Your task to perform on an android device: Check the weather Image 0: 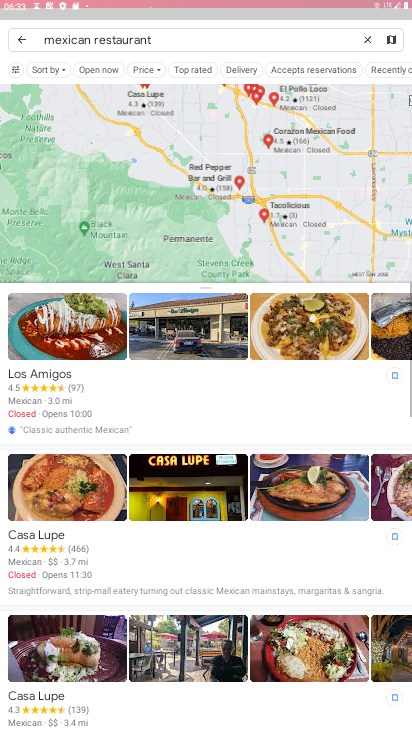
Step 0: press home button
Your task to perform on an android device: Check the weather Image 1: 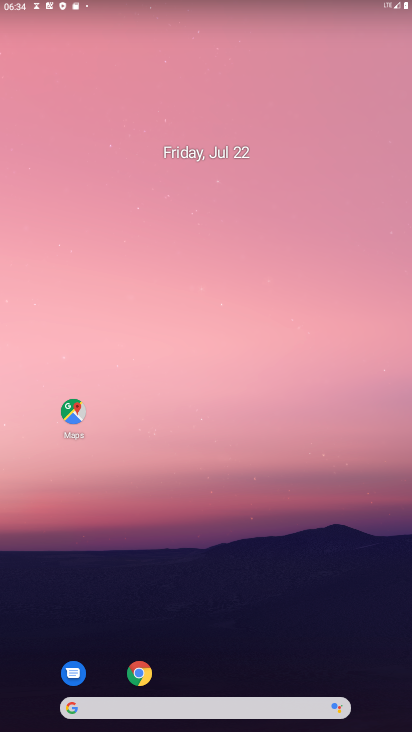
Step 1: click (70, 708)
Your task to perform on an android device: Check the weather Image 2: 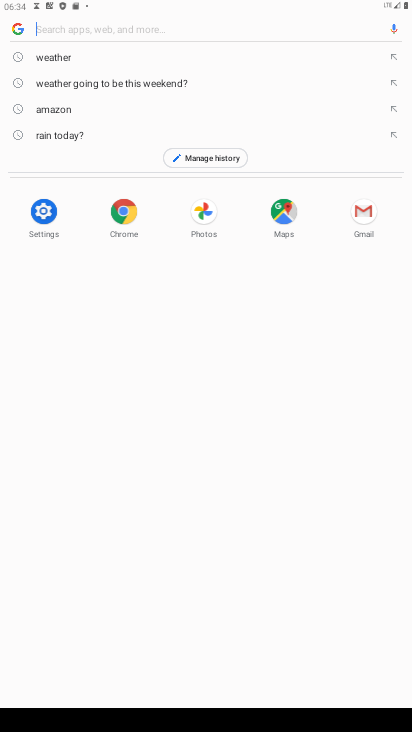
Step 2: click (56, 56)
Your task to perform on an android device: Check the weather Image 3: 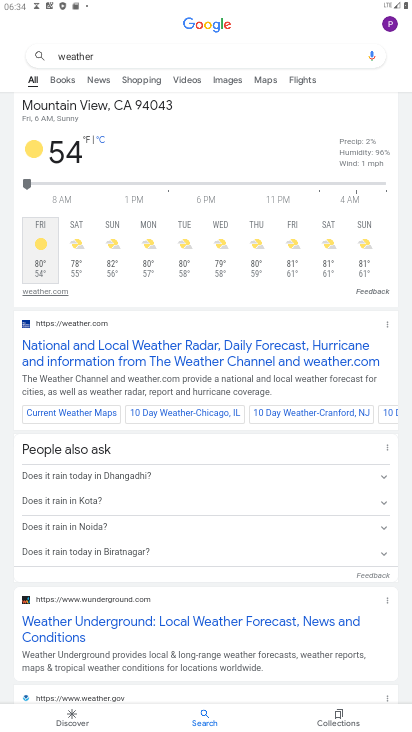
Step 3: task complete